Your task to perform on an android device: change keyboard looks Image 0: 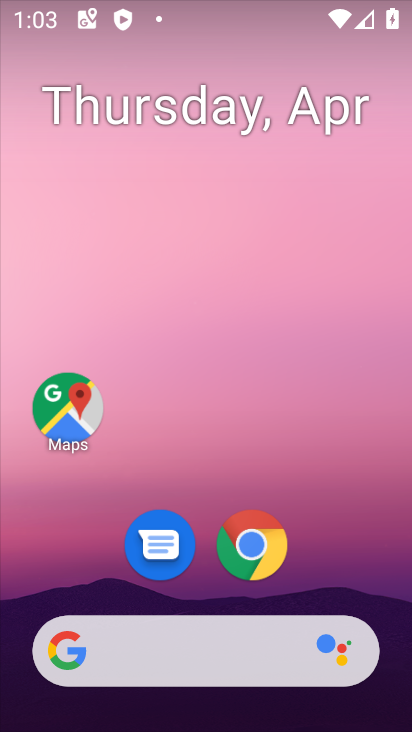
Step 0: drag from (173, 636) to (383, 9)
Your task to perform on an android device: change keyboard looks Image 1: 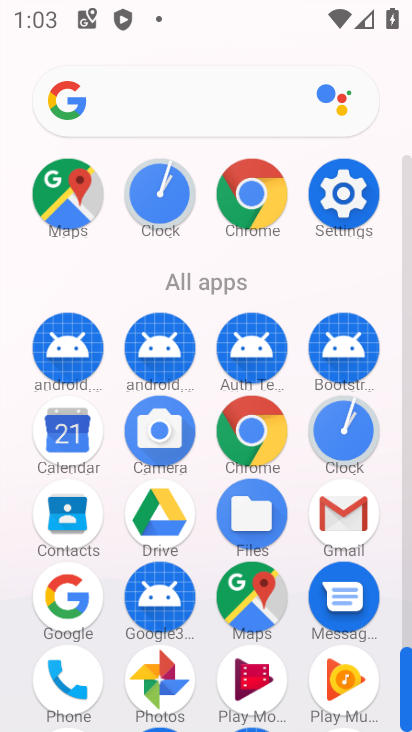
Step 1: click (343, 205)
Your task to perform on an android device: change keyboard looks Image 2: 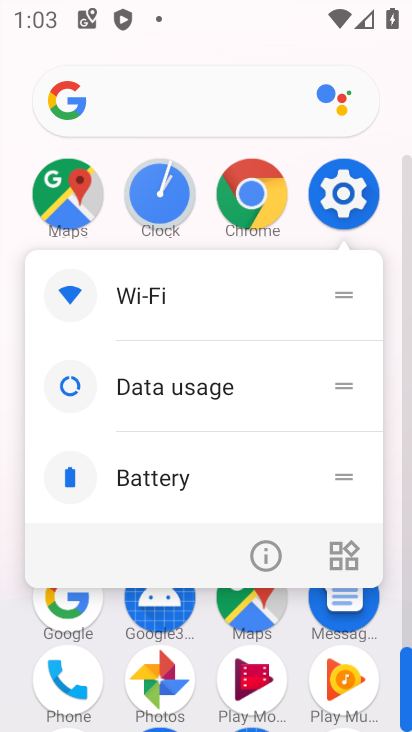
Step 2: click (343, 201)
Your task to perform on an android device: change keyboard looks Image 3: 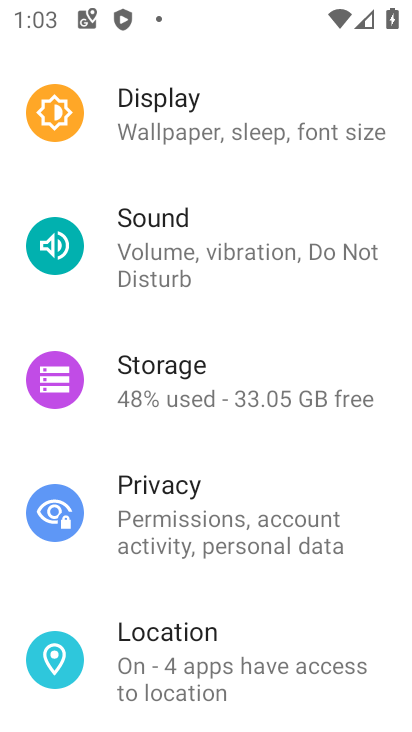
Step 3: drag from (265, 617) to (361, 166)
Your task to perform on an android device: change keyboard looks Image 4: 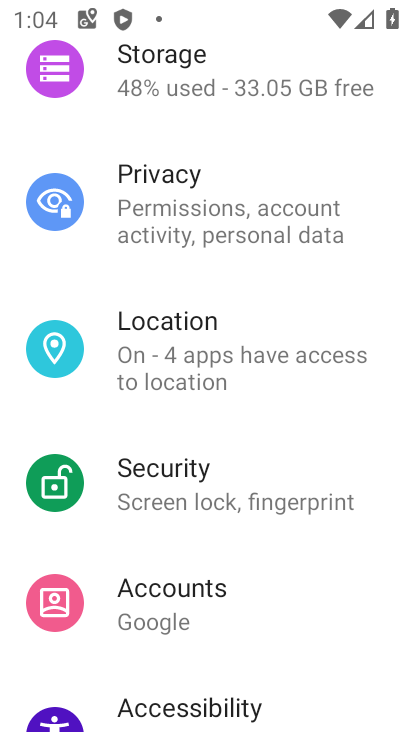
Step 4: drag from (312, 315) to (388, 50)
Your task to perform on an android device: change keyboard looks Image 5: 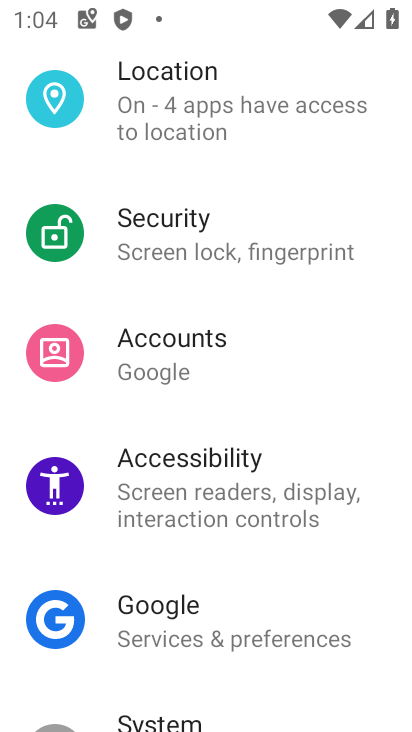
Step 5: drag from (211, 609) to (402, 79)
Your task to perform on an android device: change keyboard looks Image 6: 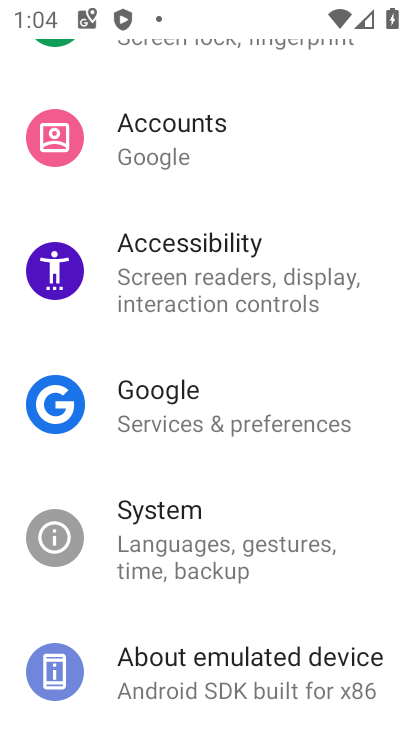
Step 6: click (197, 540)
Your task to perform on an android device: change keyboard looks Image 7: 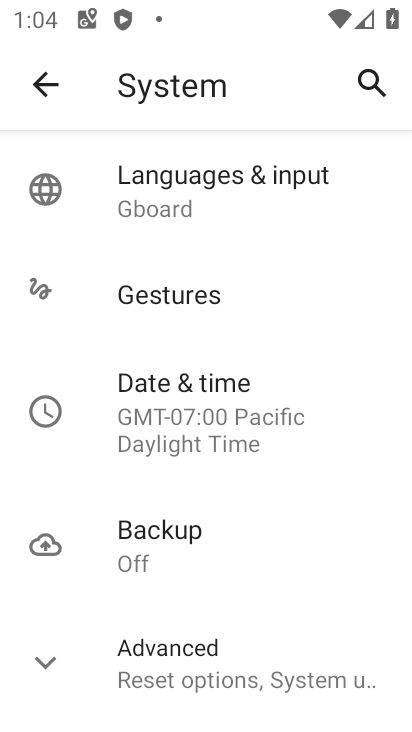
Step 7: click (205, 198)
Your task to perform on an android device: change keyboard looks Image 8: 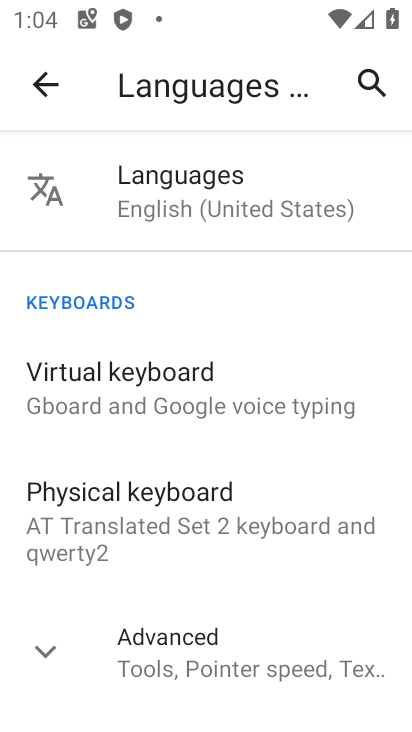
Step 8: click (170, 376)
Your task to perform on an android device: change keyboard looks Image 9: 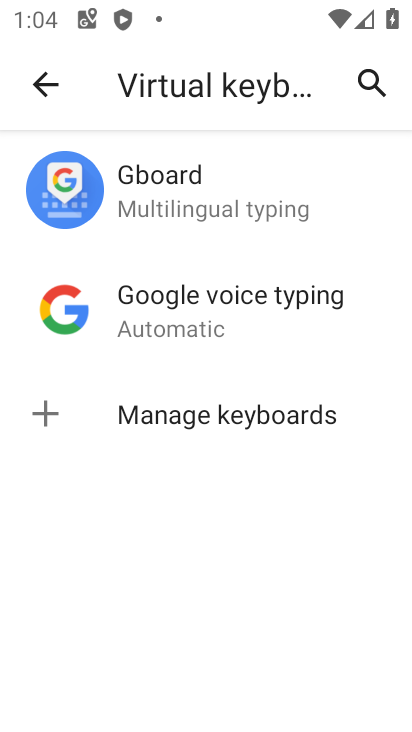
Step 9: click (197, 198)
Your task to perform on an android device: change keyboard looks Image 10: 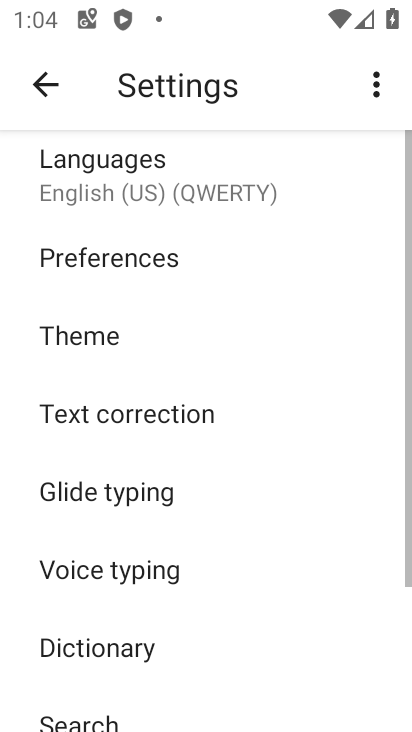
Step 10: click (65, 338)
Your task to perform on an android device: change keyboard looks Image 11: 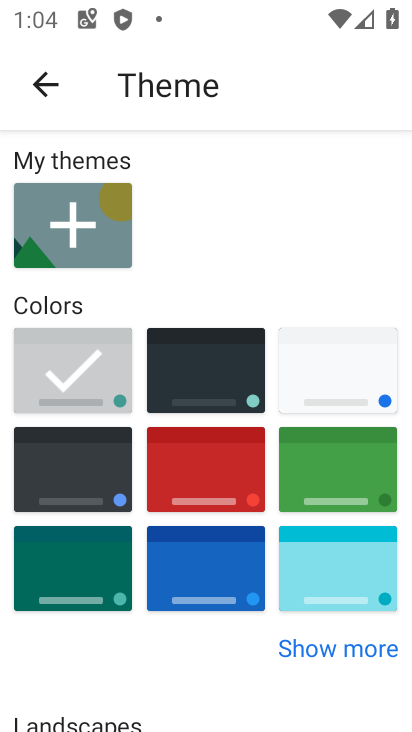
Step 11: click (230, 472)
Your task to perform on an android device: change keyboard looks Image 12: 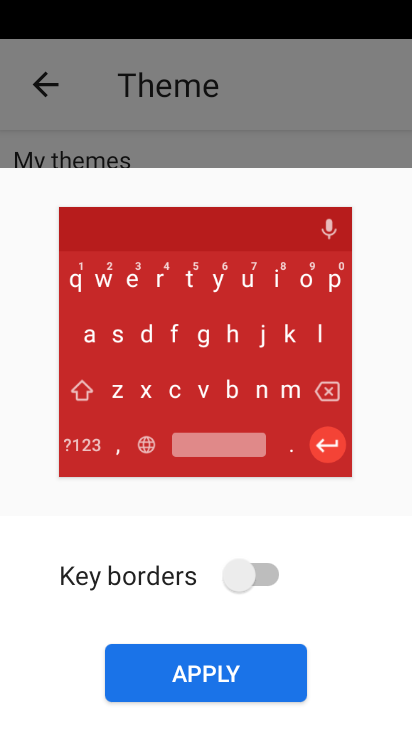
Step 12: click (209, 678)
Your task to perform on an android device: change keyboard looks Image 13: 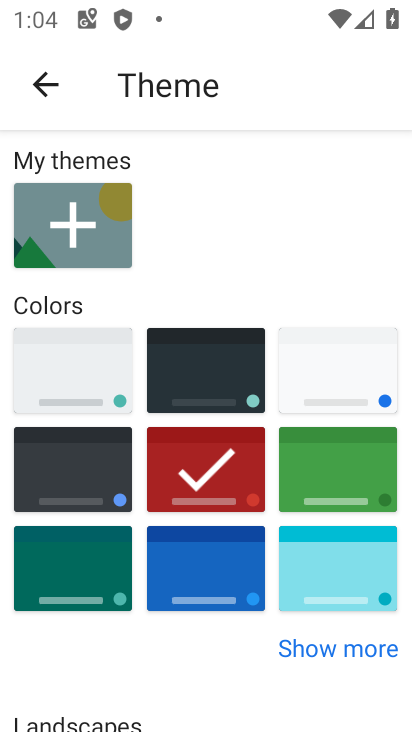
Step 13: task complete